Your task to perform on an android device: Open internet settings Image 0: 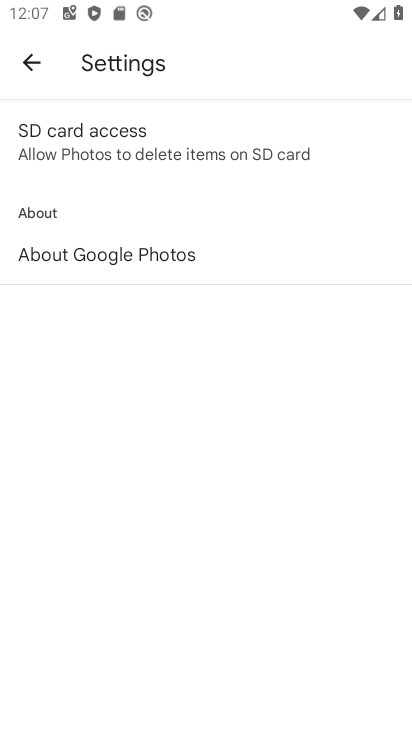
Step 0: press home button
Your task to perform on an android device: Open internet settings Image 1: 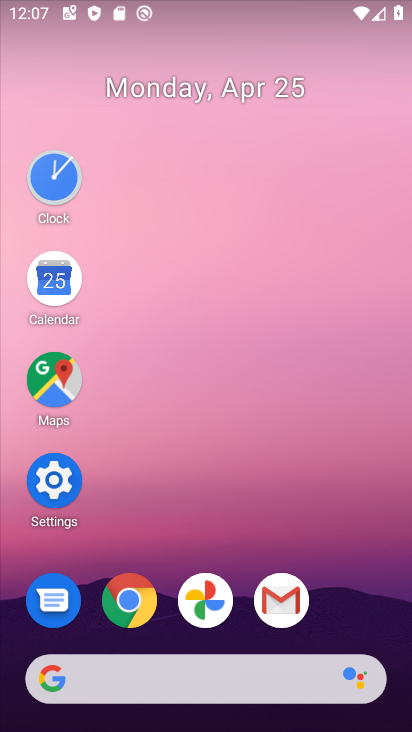
Step 1: click (52, 483)
Your task to perform on an android device: Open internet settings Image 2: 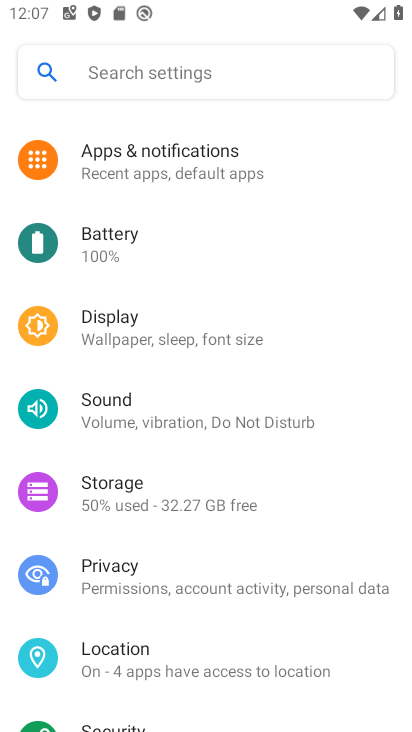
Step 2: drag from (255, 219) to (399, 692)
Your task to perform on an android device: Open internet settings Image 3: 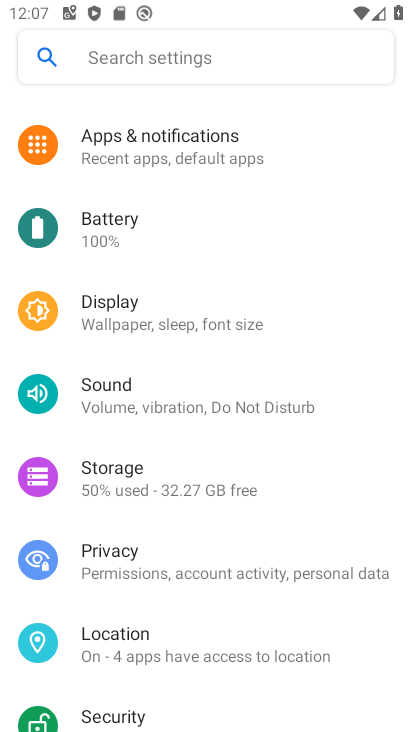
Step 3: drag from (225, 221) to (186, 712)
Your task to perform on an android device: Open internet settings Image 4: 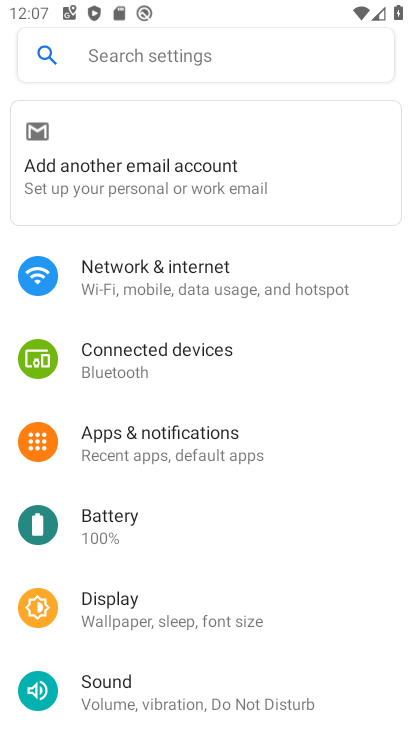
Step 4: click (161, 266)
Your task to perform on an android device: Open internet settings Image 5: 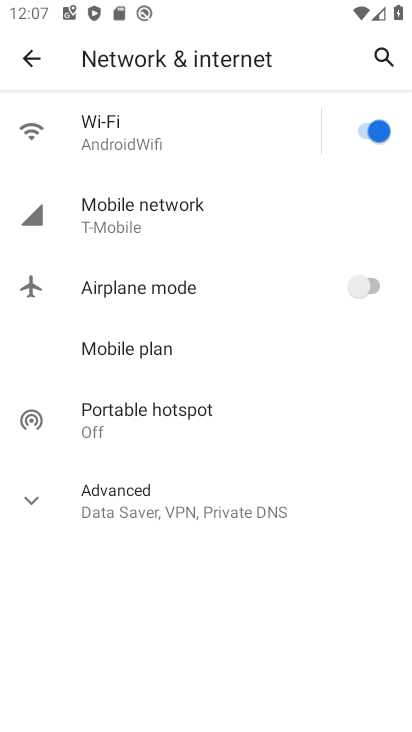
Step 5: task complete